Your task to perform on an android device: open app "Booking.com: Hotels and more" (install if not already installed) Image 0: 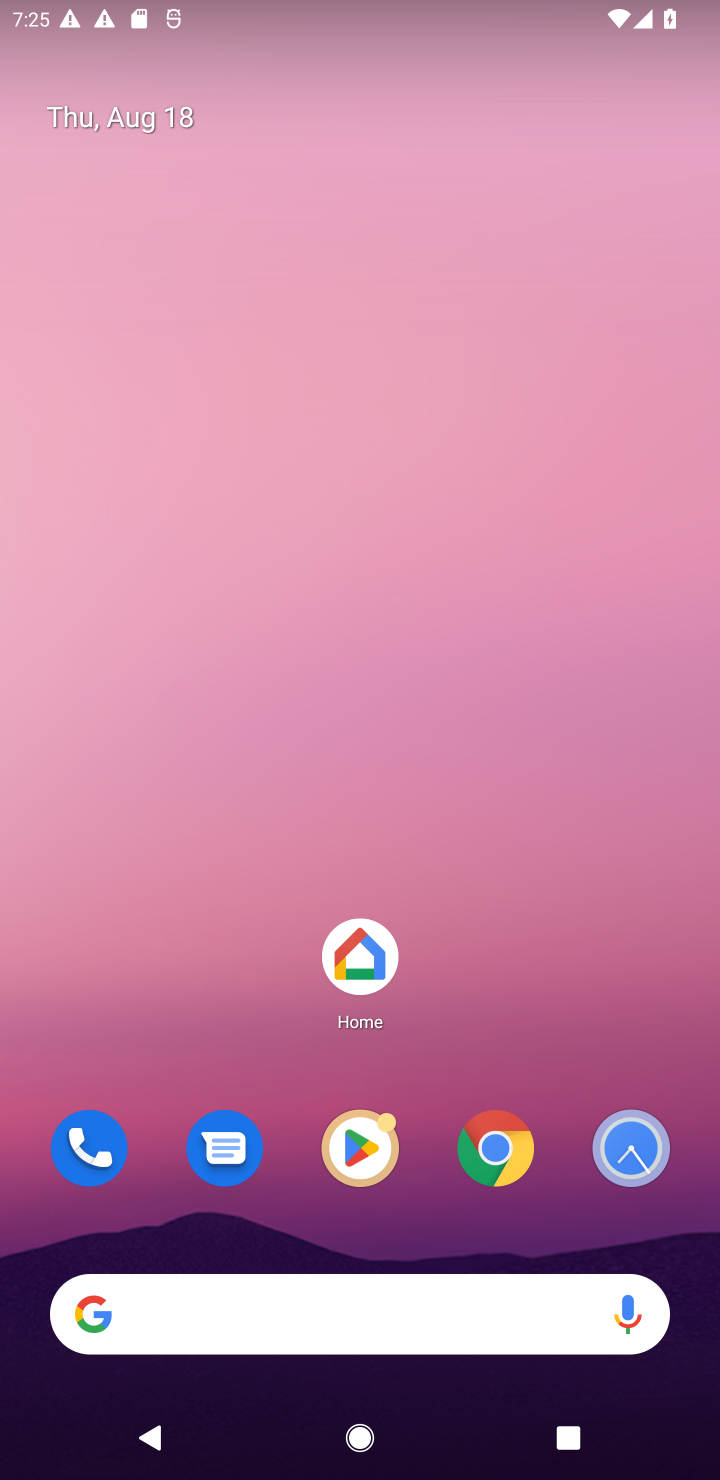
Step 0: drag from (182, 931) to (479, 189)
Your task to perform on an android device: open app "Booking.com: Hotels and more" (install if not already installed) Image 1: 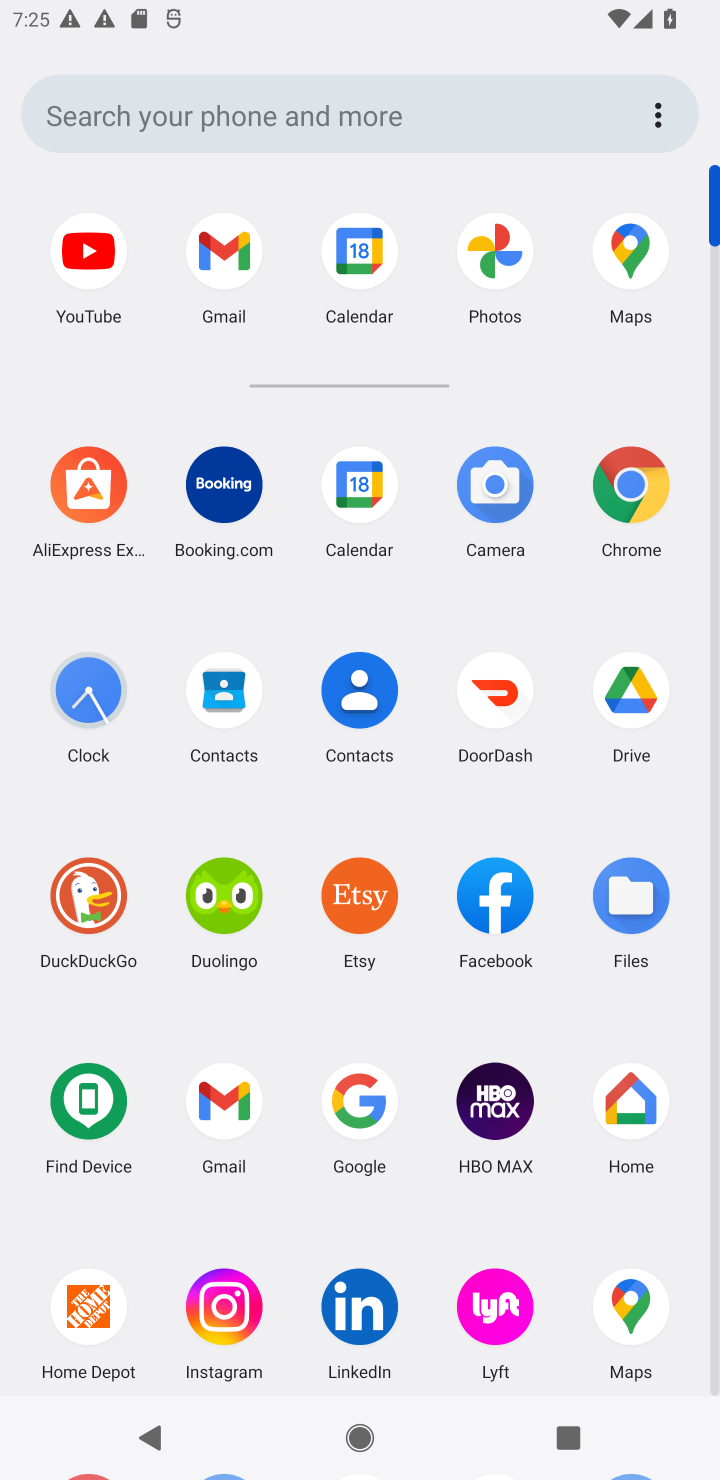
Step 1: drag from (456, 1267) to (676, 328)
Your task to perform on an android device: open app "Booking.com: Hotels and more" (install if not already installed) Image 2: 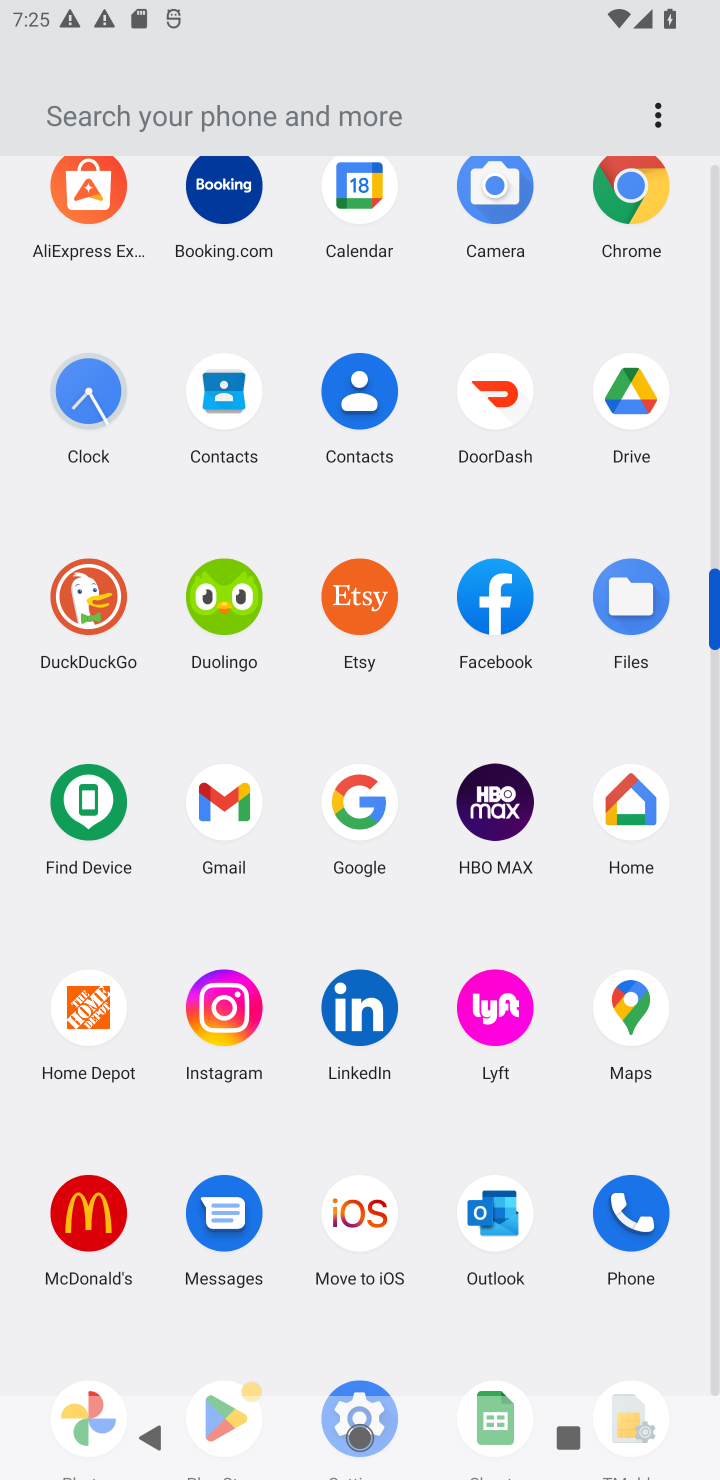
Step 2: drag from (281, 1143) to (507, 429)
Your task to perform on an android device: open app "Booking.com: Hotels and more" (install if not already installed) Image 3: 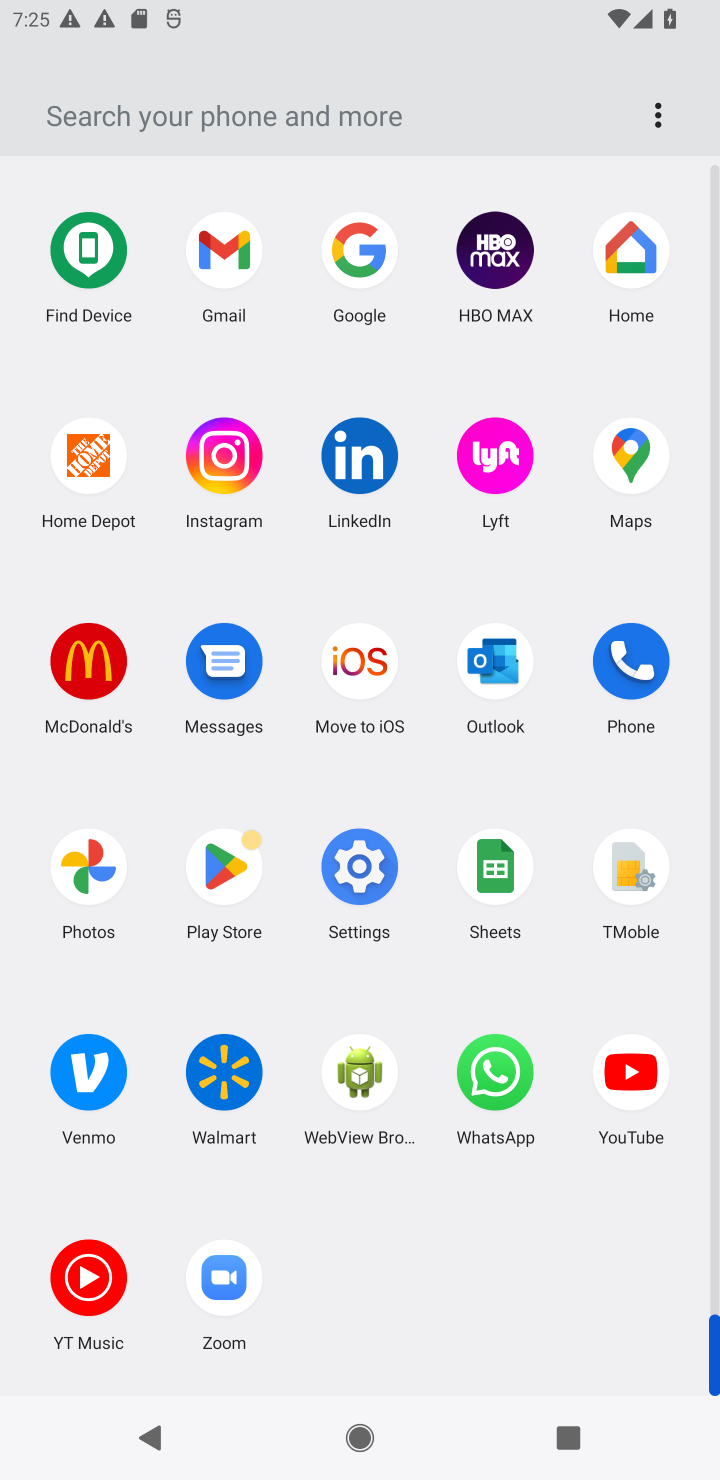
Step 3: click (217, 900)
Your task to perform on an android device: open app "Booking.com: Hotels and more" (install if not already installed) Image 4: 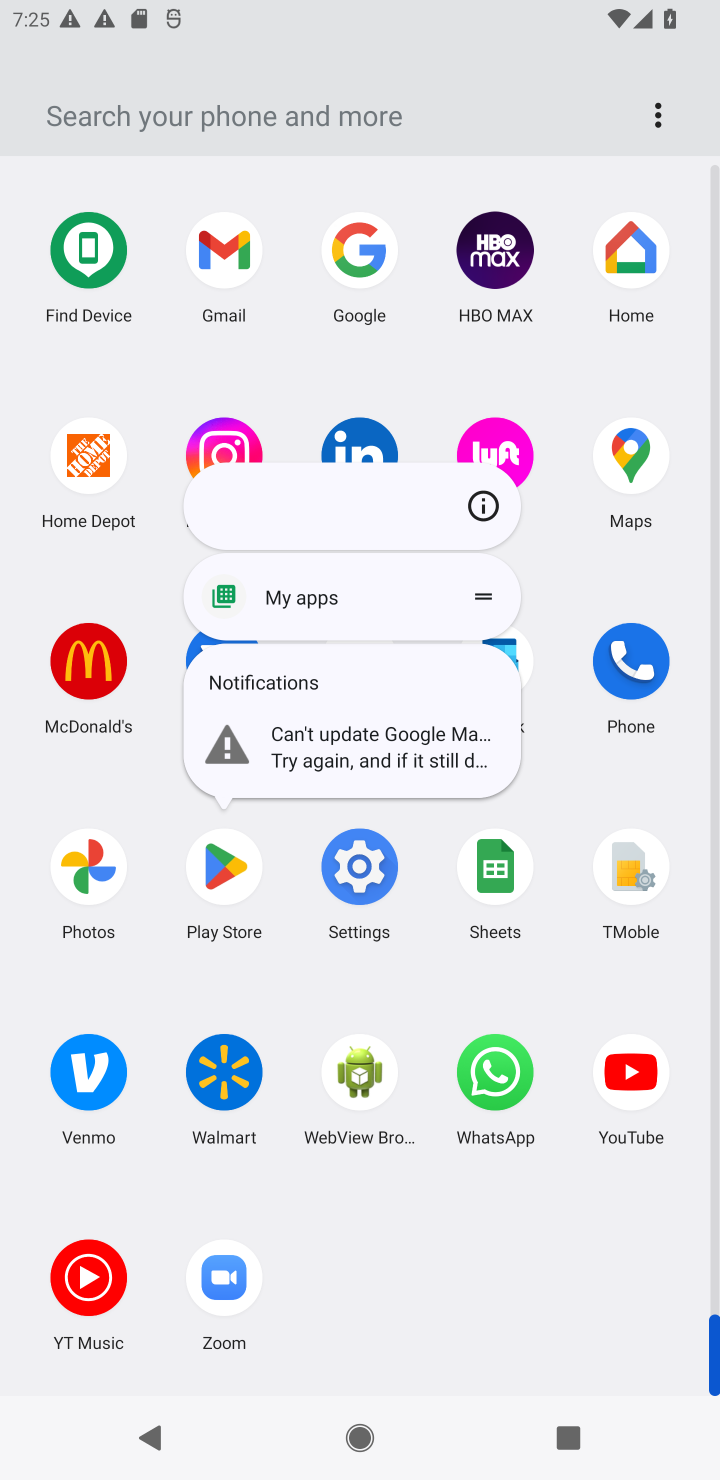
Step 4: click (219, 868)
Your task to perform on an android device: open app "Booking.com: Hotels and more" (install if not already installed) Image 5: 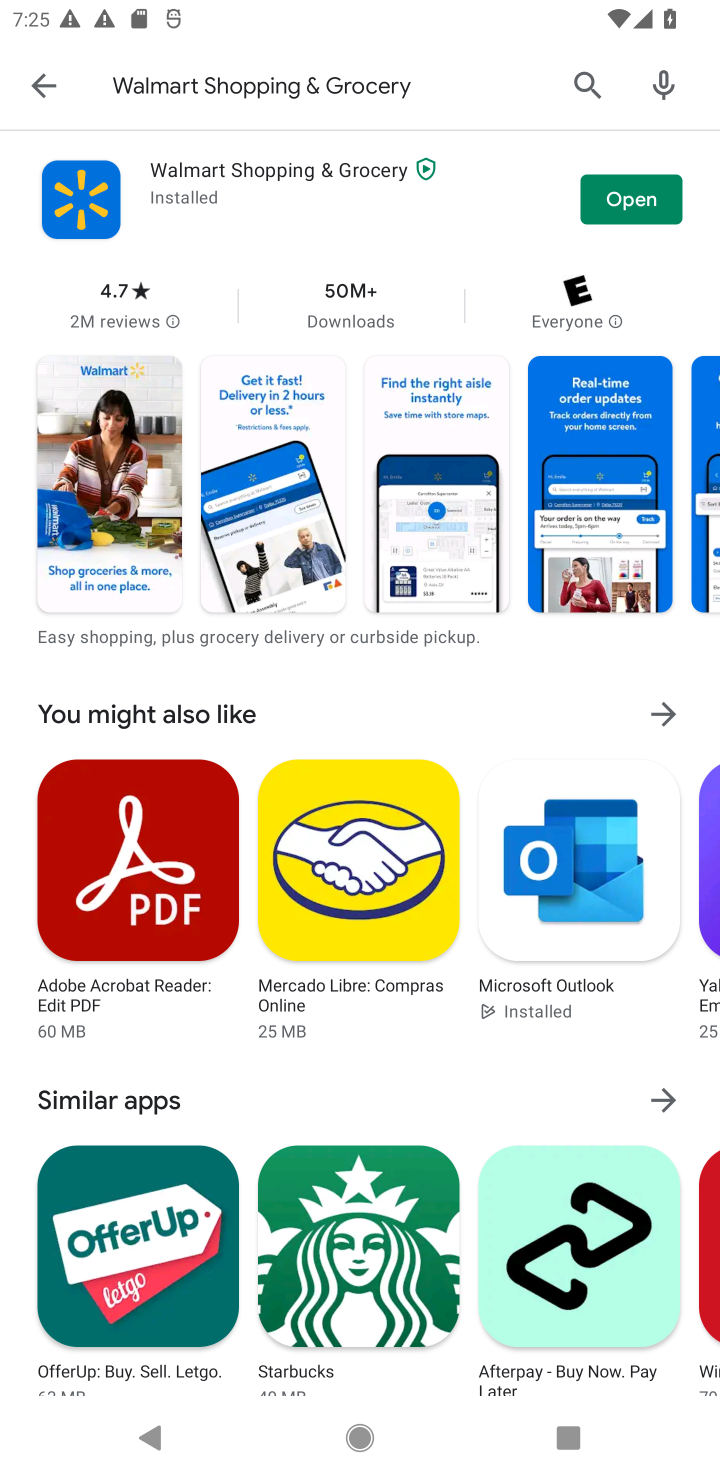
Step 5: press back button
Your task to perform on an android device: open app "Booking.com: Hotels and more" (install if not already installed) Image 6: 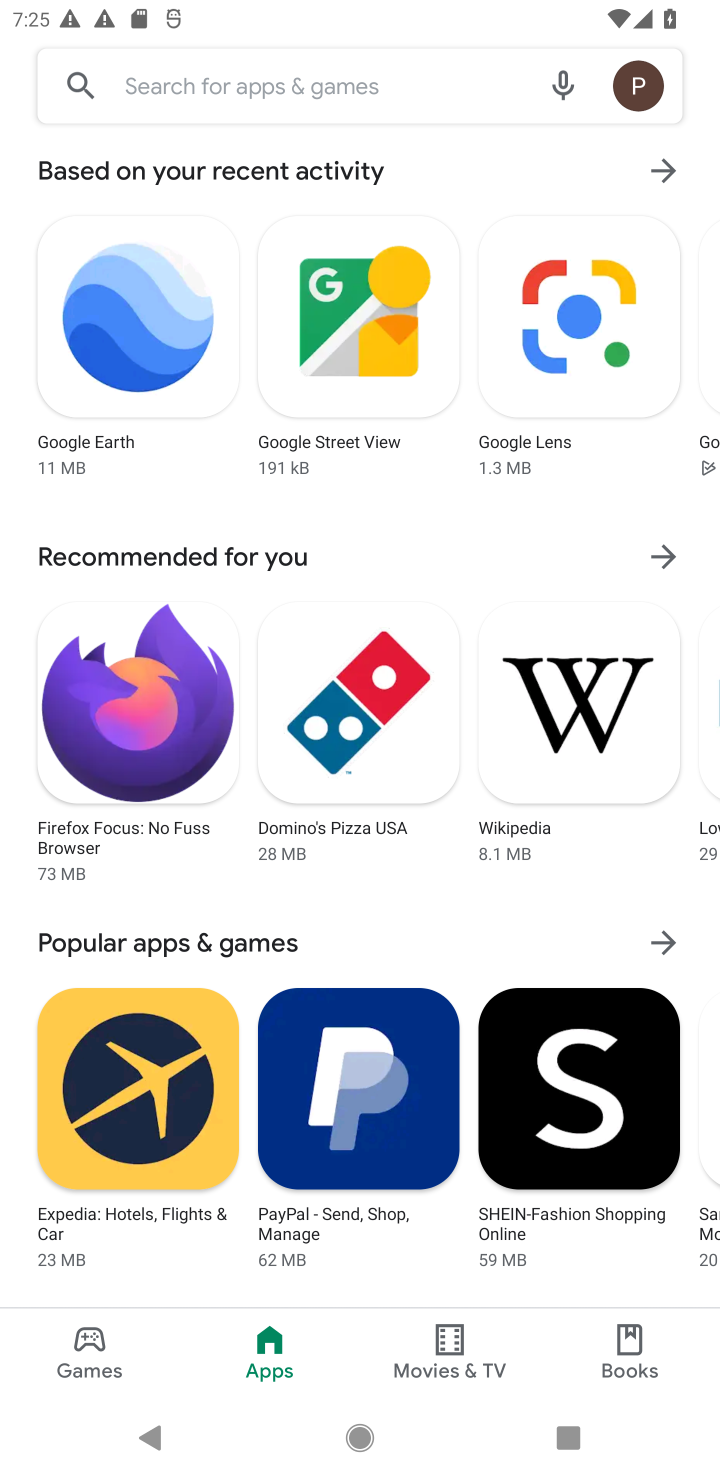
Step 6: click (219, 92)
Your task to perform on an android device: open app "Booking.com: Hotels and more" (install if not already installed) Image 7: 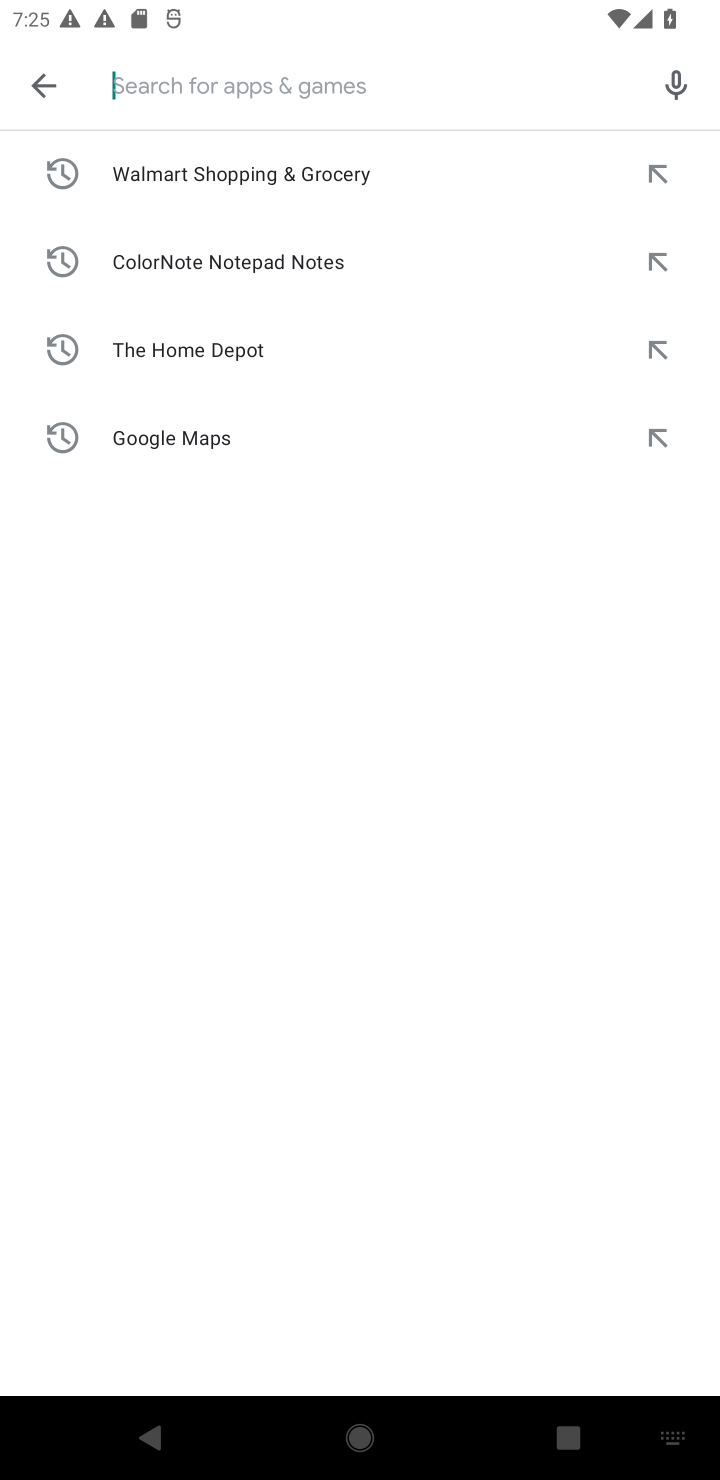
Step 7: type "Booking.com: Hotels and more"
Your task to perform on an android device: open app "Booking.com: Hotels and more" (install if not already installed) Image 8: 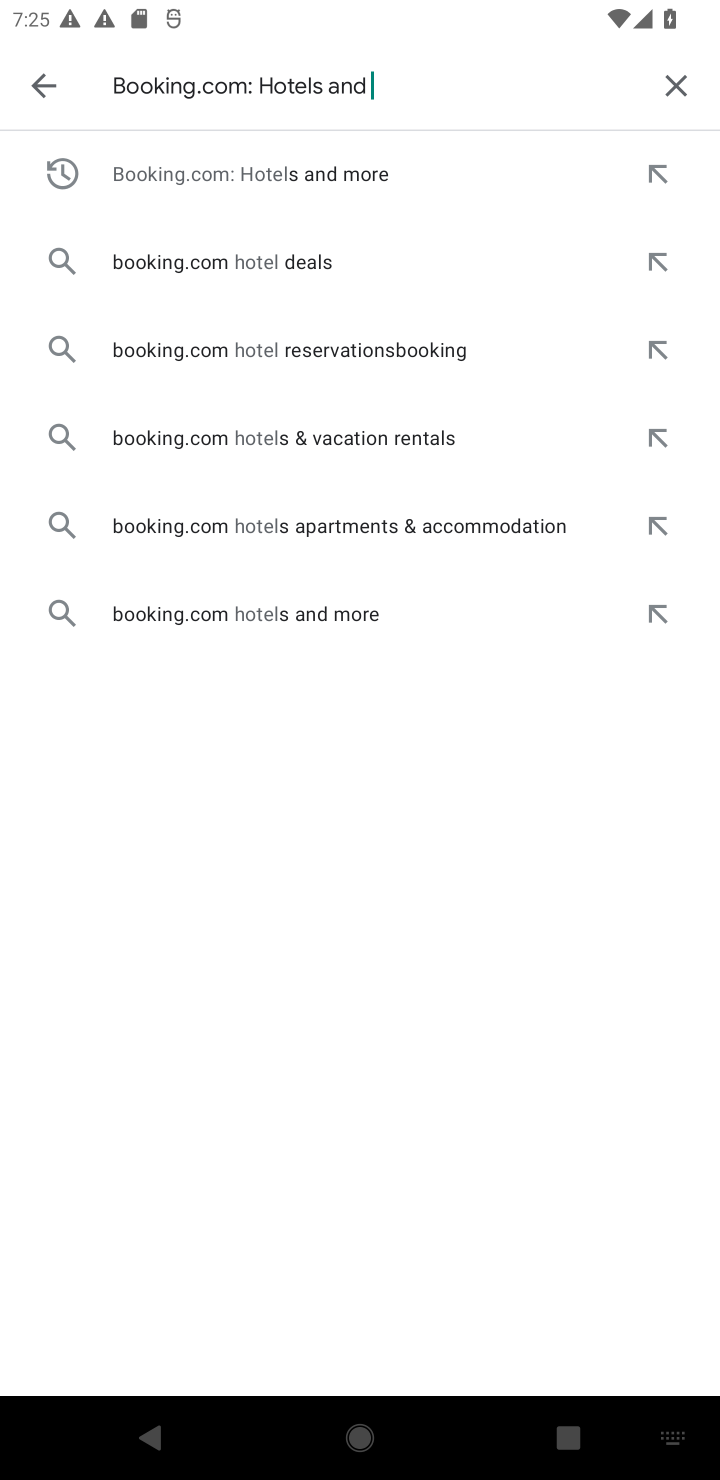
Step 8: press enter
Your task to perform on an android device: open app "Booking.com: Hotels and more" (install if not already installed) Image 9: 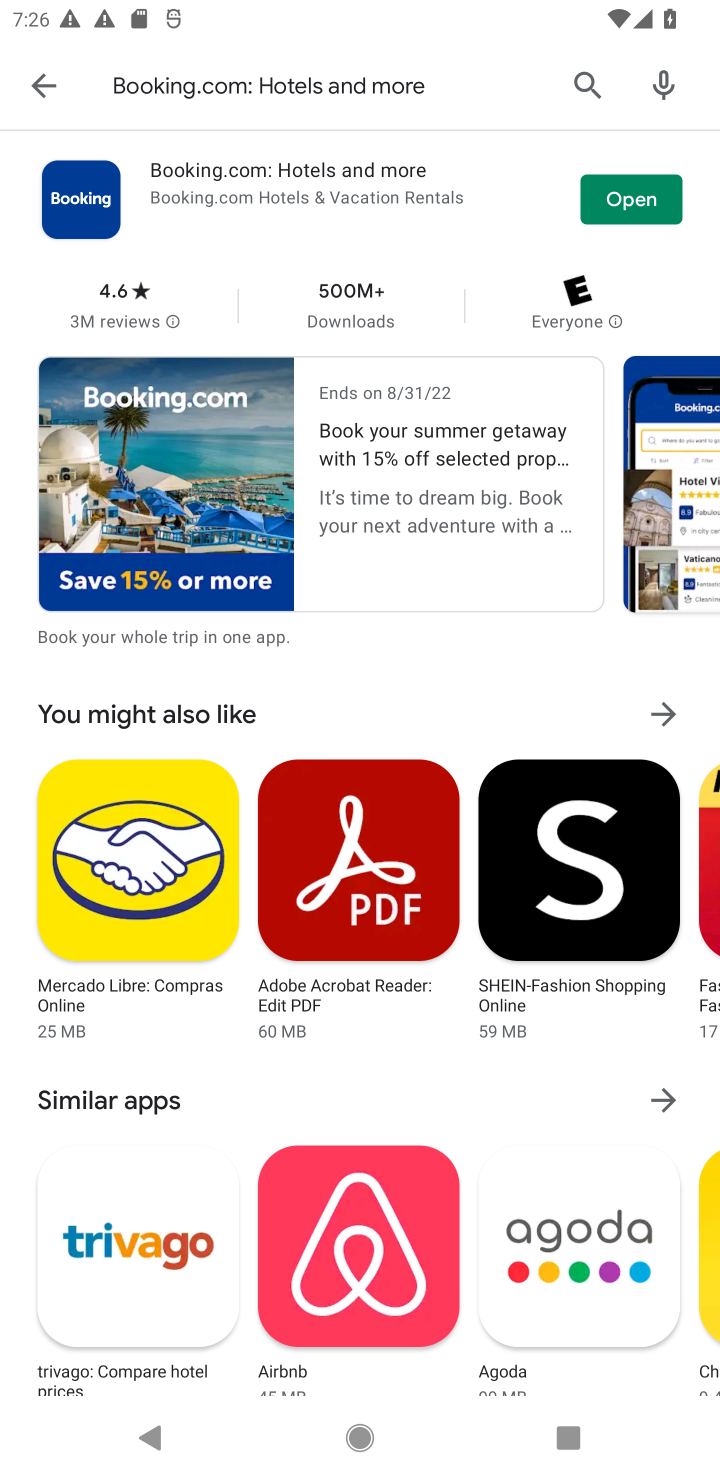
Step 9: click (623, 199)
Your task to perform on an android device: open app "Booking.com: Hotels and more" (install if not already installed) Image 10: 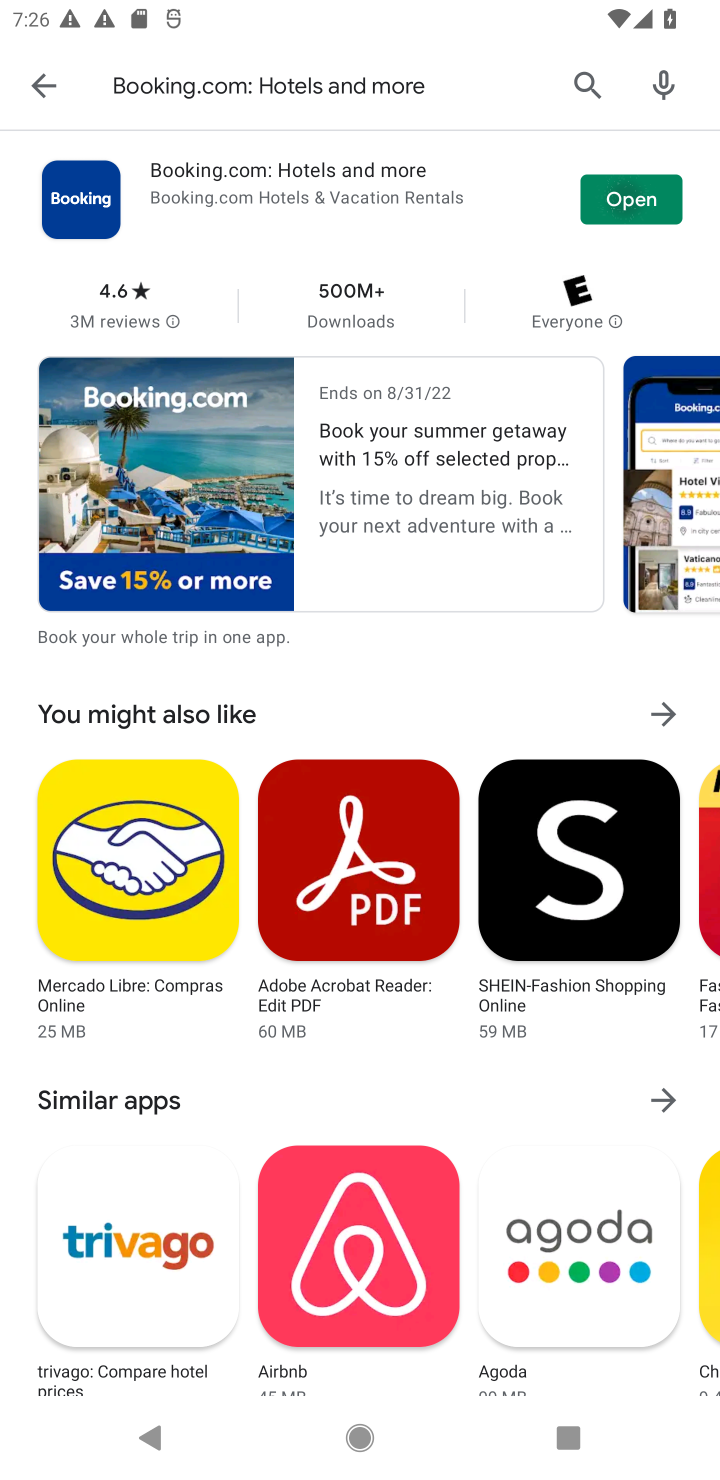
Step 10: task complete